Your task to perform on an android device: Search for "razer kraken" on costco, select the first entry, and add it to the cart. Image 0: 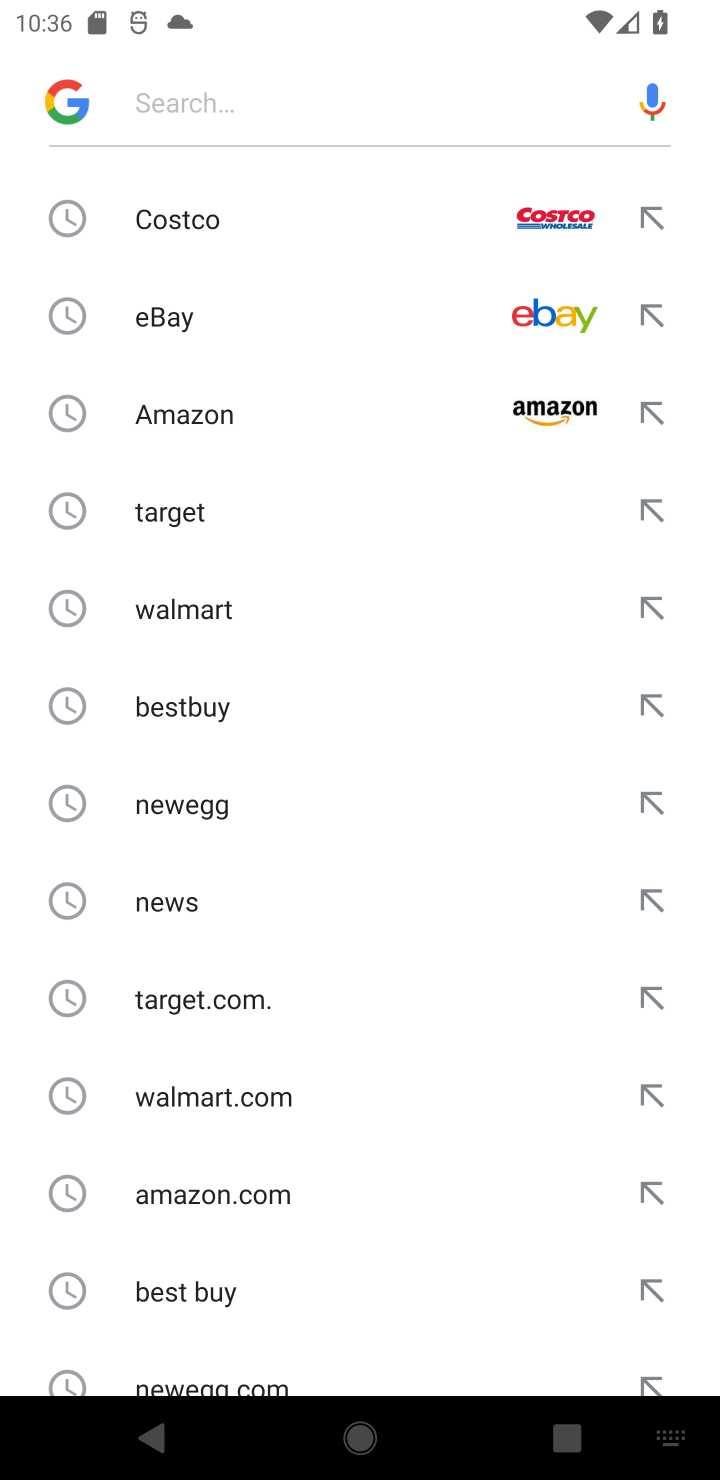
Step 0: press home button
Your task to perform on an android device: Search for "razer kraken" on costco, select the first entry, and add it to the cart. Image 1: 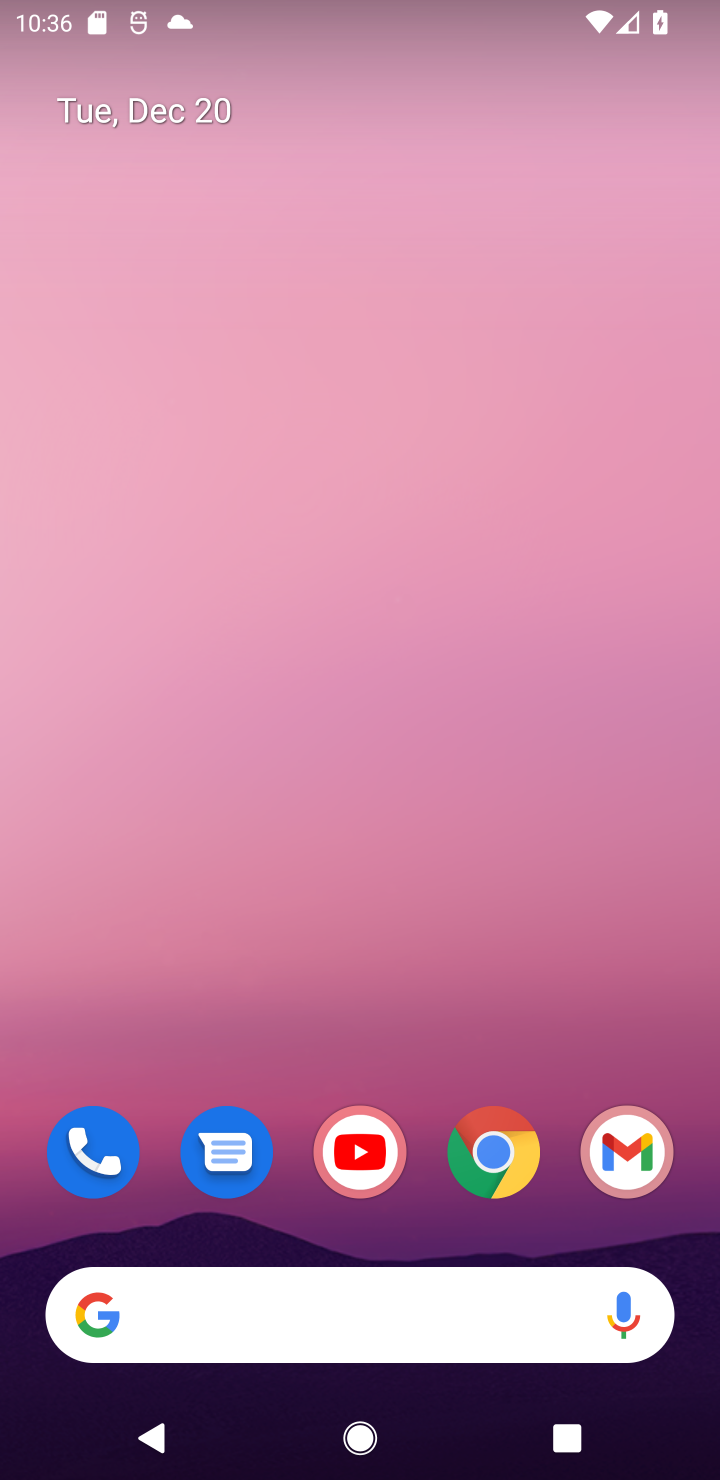
Step 1: click (469, 1146)
Your task to perform on an android device: Search for "razer kraken" on costco, select the first entry, and add it to the cart. Image 2: 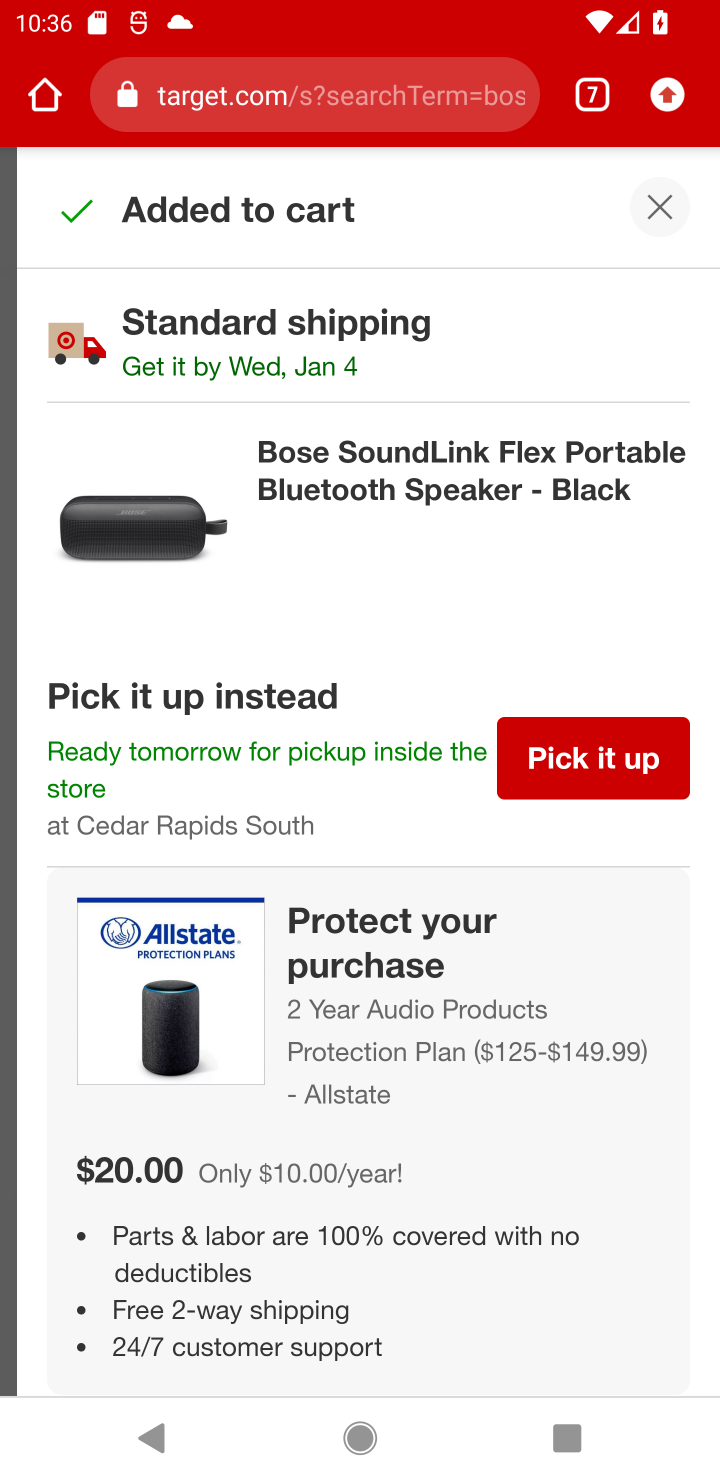
Step 2: click (578, 98)
Your task to perform on an android device: Search for "razer kraken" on costco, select the first entry, and add it to the cart. Image 3: 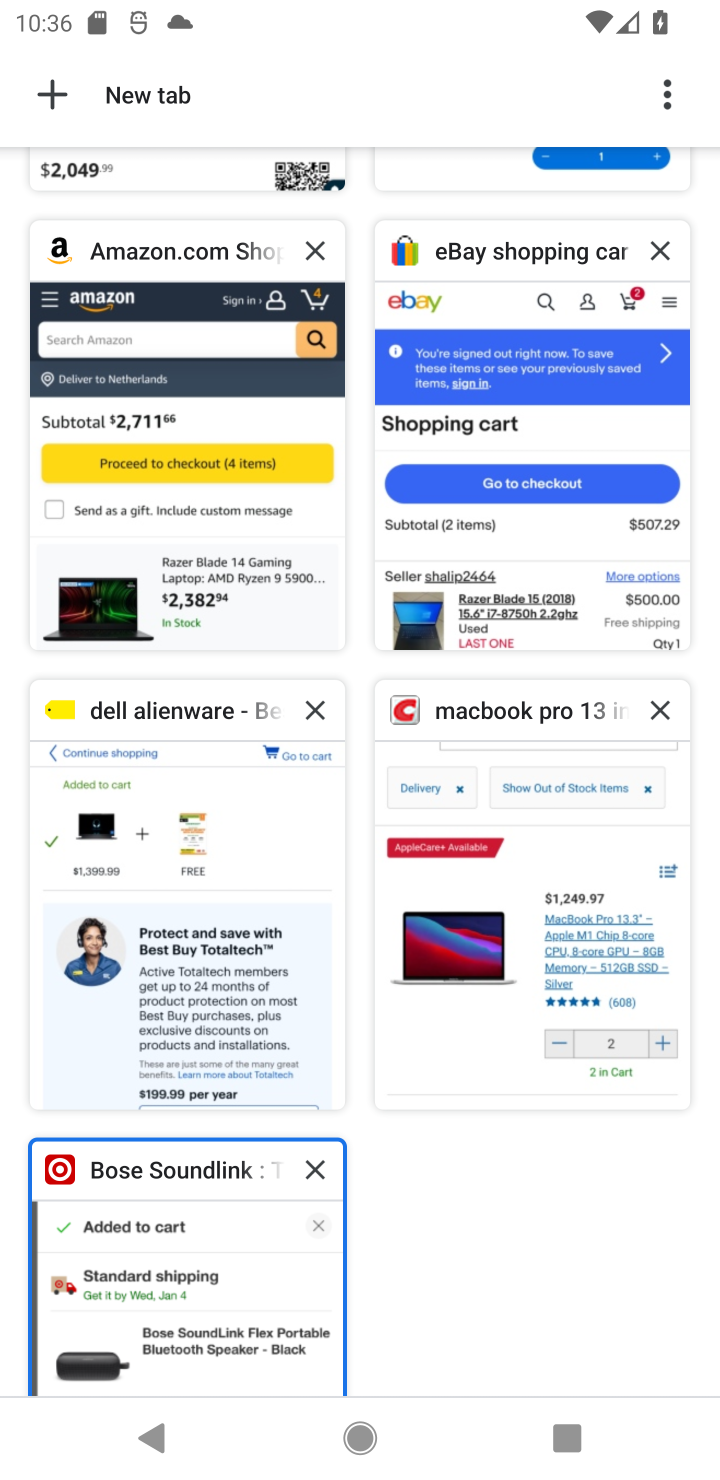
Step 3: click (439, 910)
Your task to perform on an android device: Search for "razer kraken" on costco, select the first entry, and add it to the cart. Image 4: 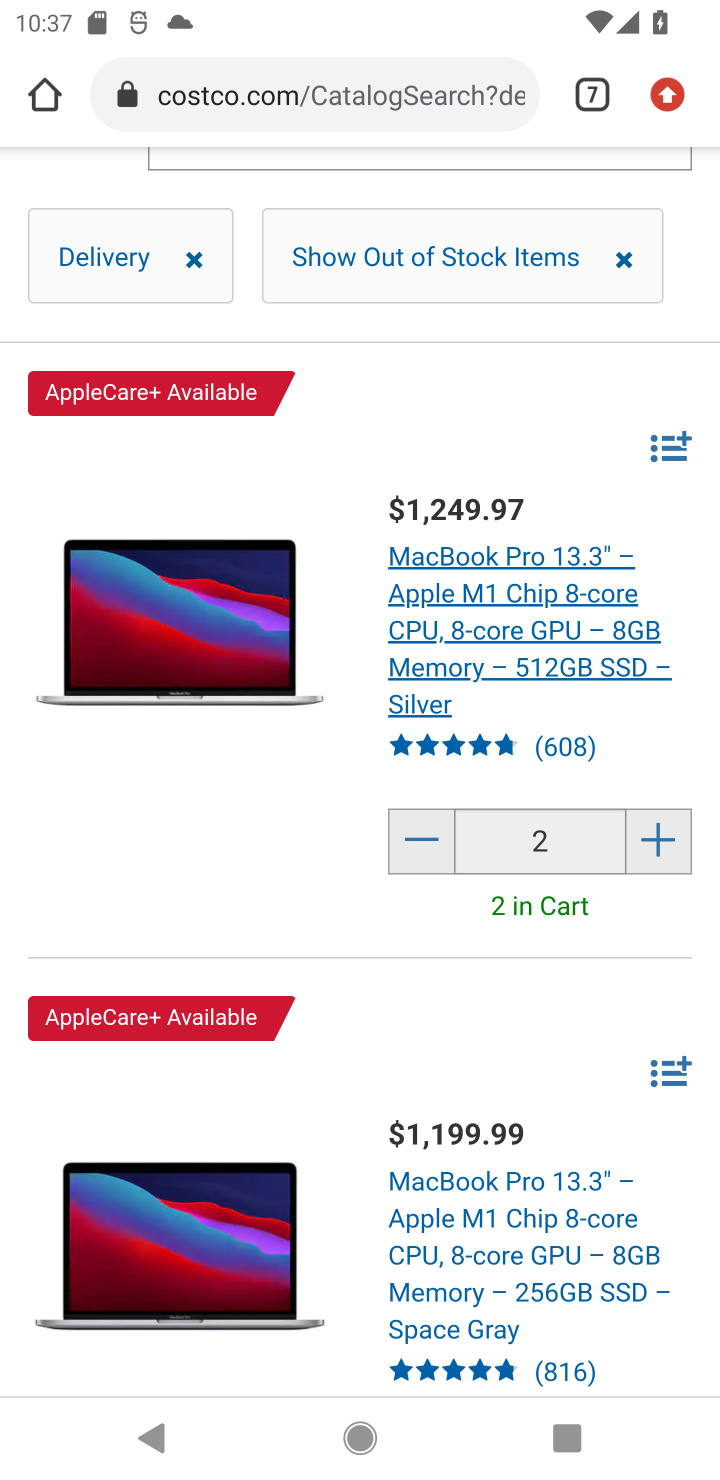
Step 4: drag from (660, 175) to (652, 915)
Your task to perform on an android device: Search for "razer kraken" on costco, select the first entry, and add it to the cart. Image 5: 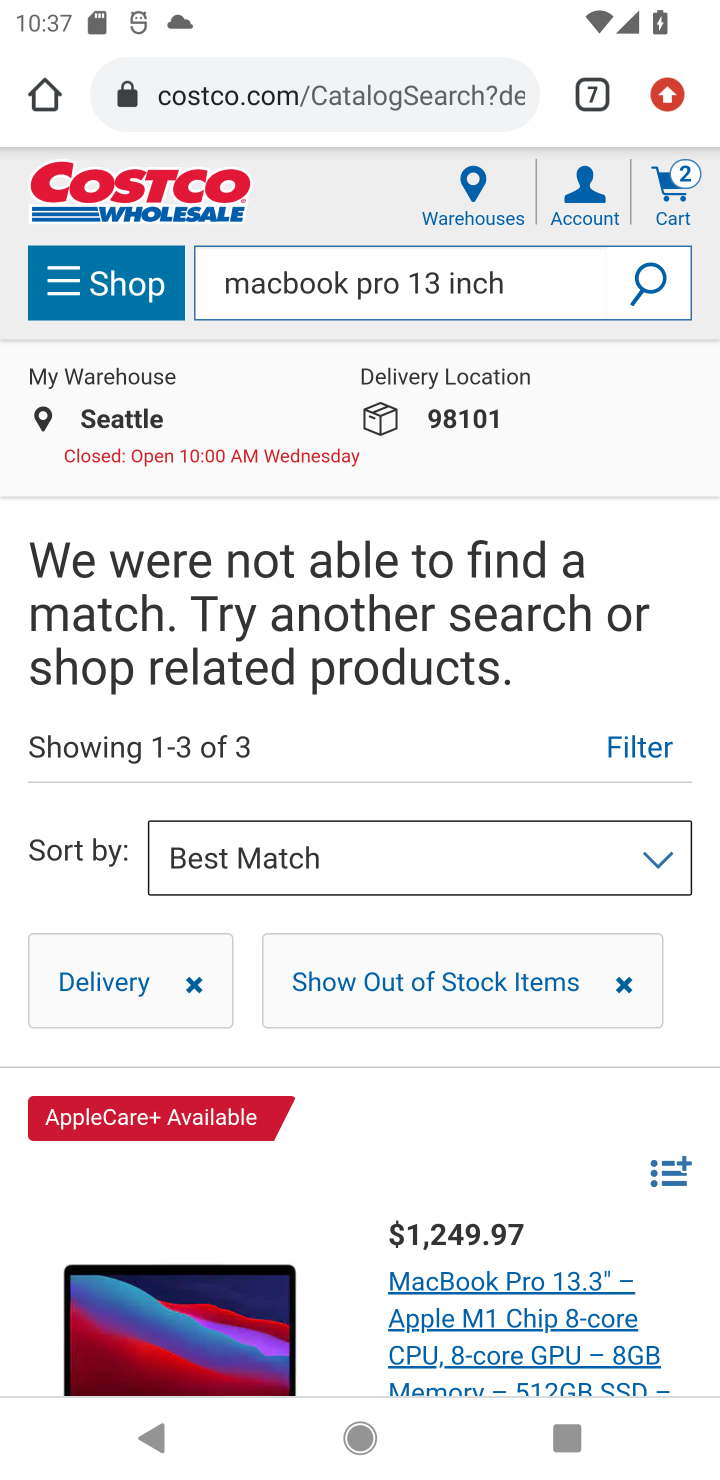
Step 5: click (490, 280)
Your task to perform on an android device: Search for "razer kraken" on costco, select the first entry, and add it to the cart. Image 6: 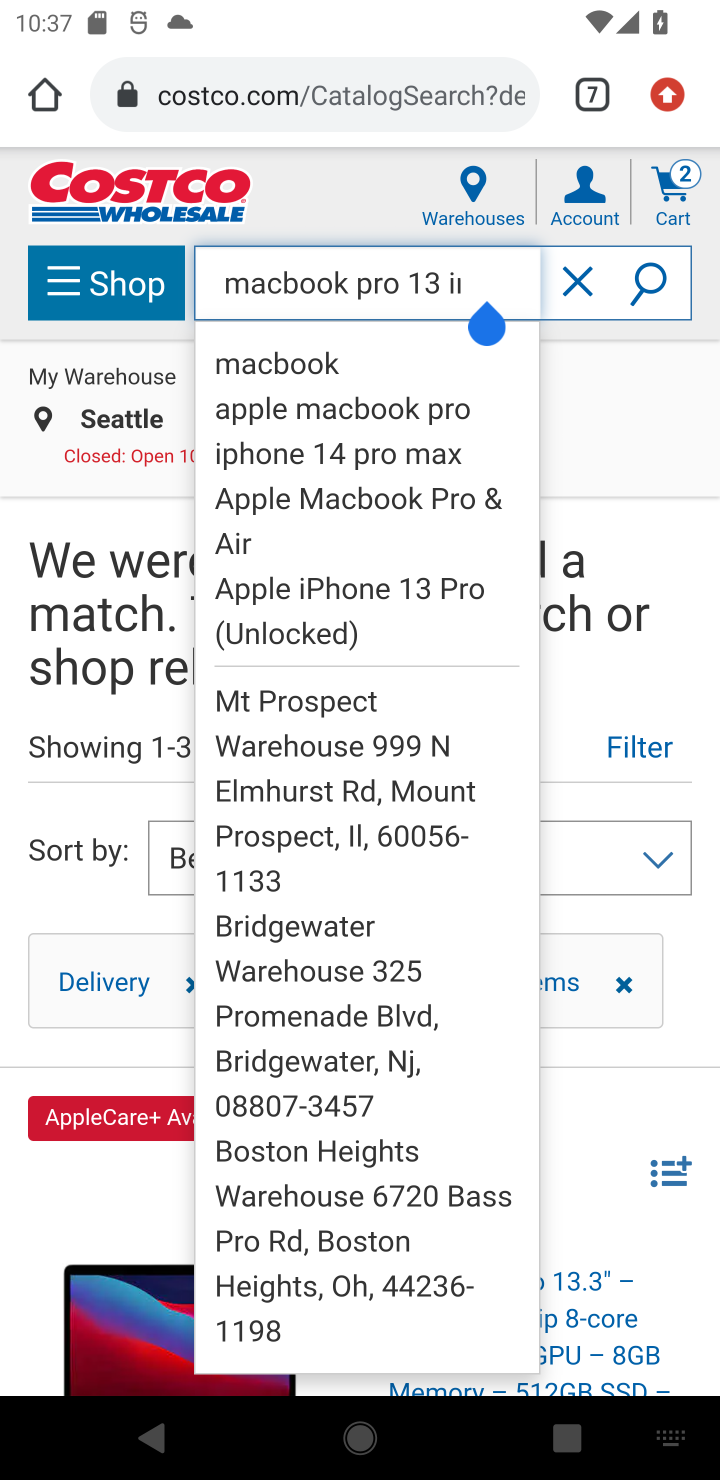
Step 6: click (582, 276)
Your task to perform on an android device: Search for "razer kraken" on costco, select the first entry, and add it to the cart. Image 7: 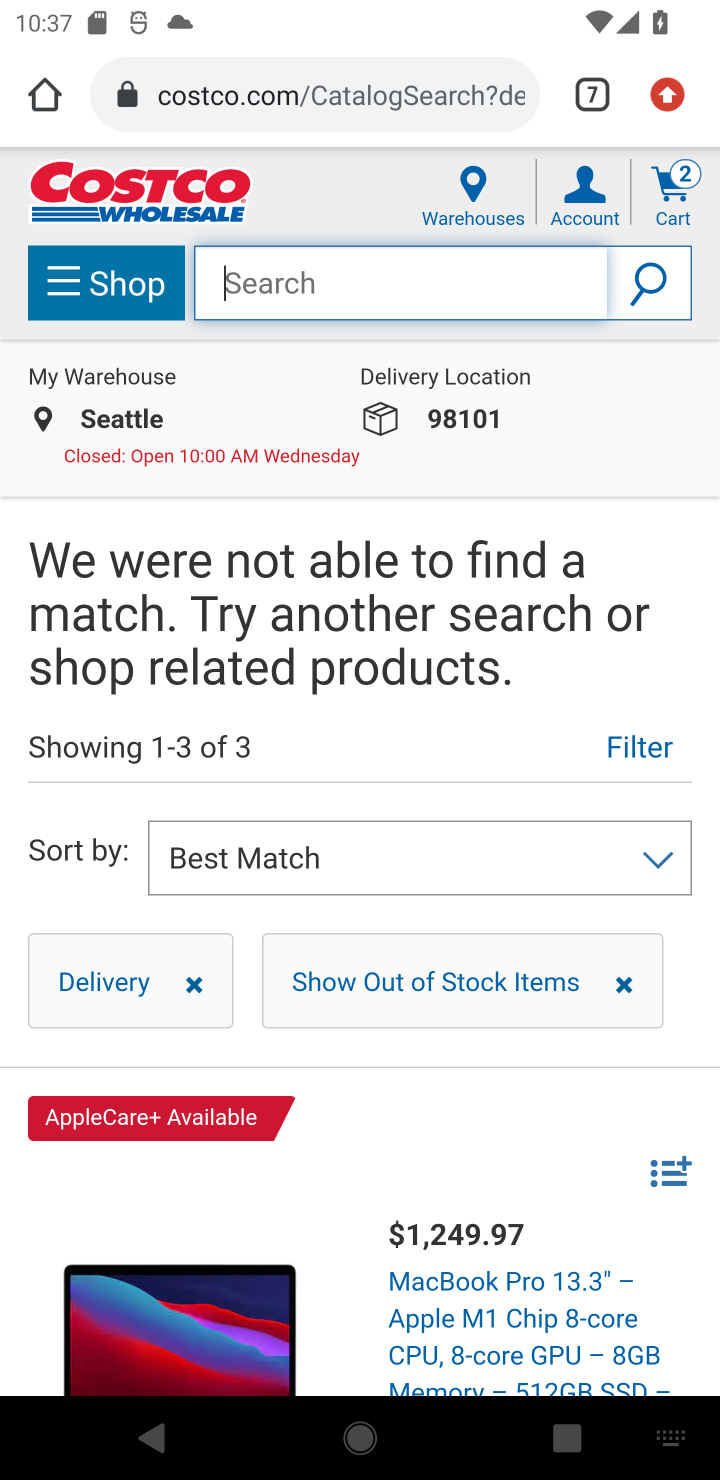
Step 7: type "razer kraken"
Your task to perform on an android device: Search for "razer kraken" on costco, select the first entry, and add it to the cart. Image 8: 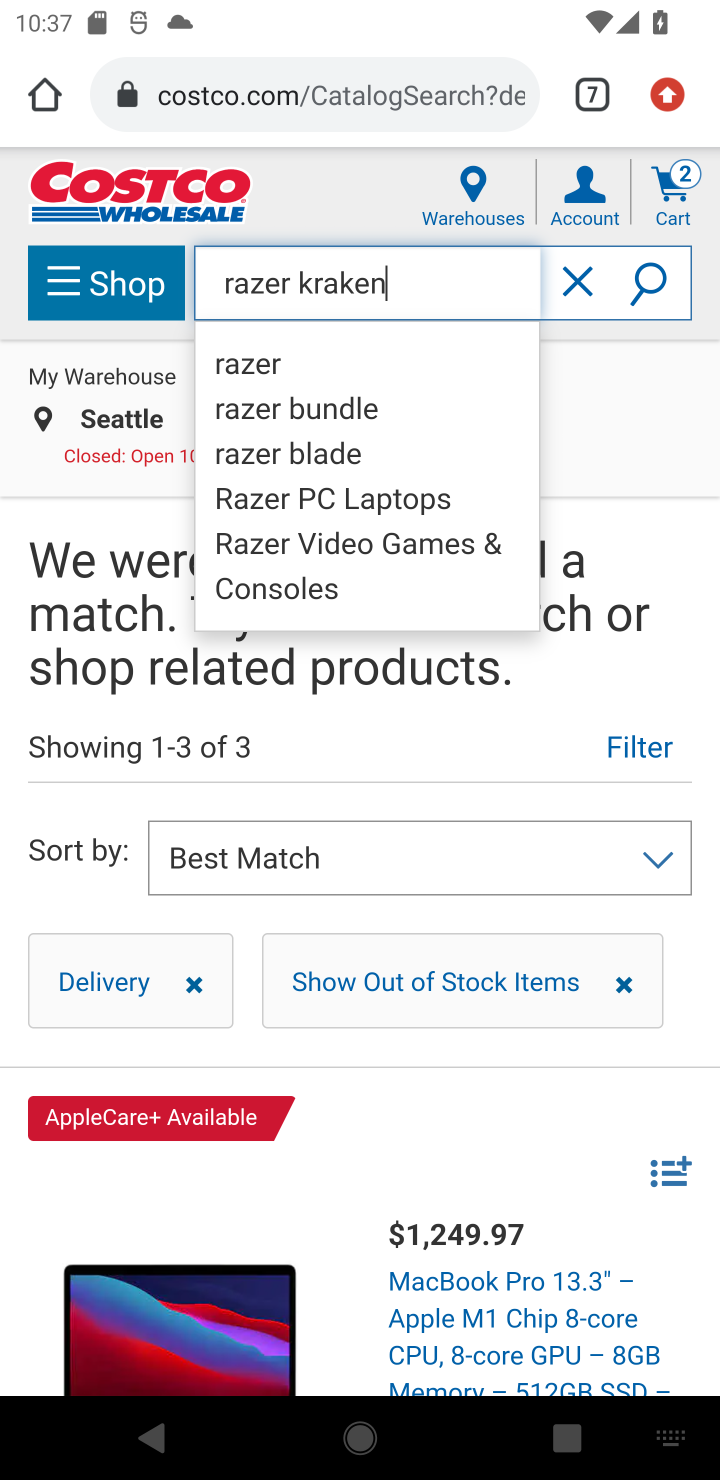
Step 8: click (649, 279)
Your task to perform on an android device: Search for "razer kraken" on costco, select the first entry, and add it to the cart. Image 9: 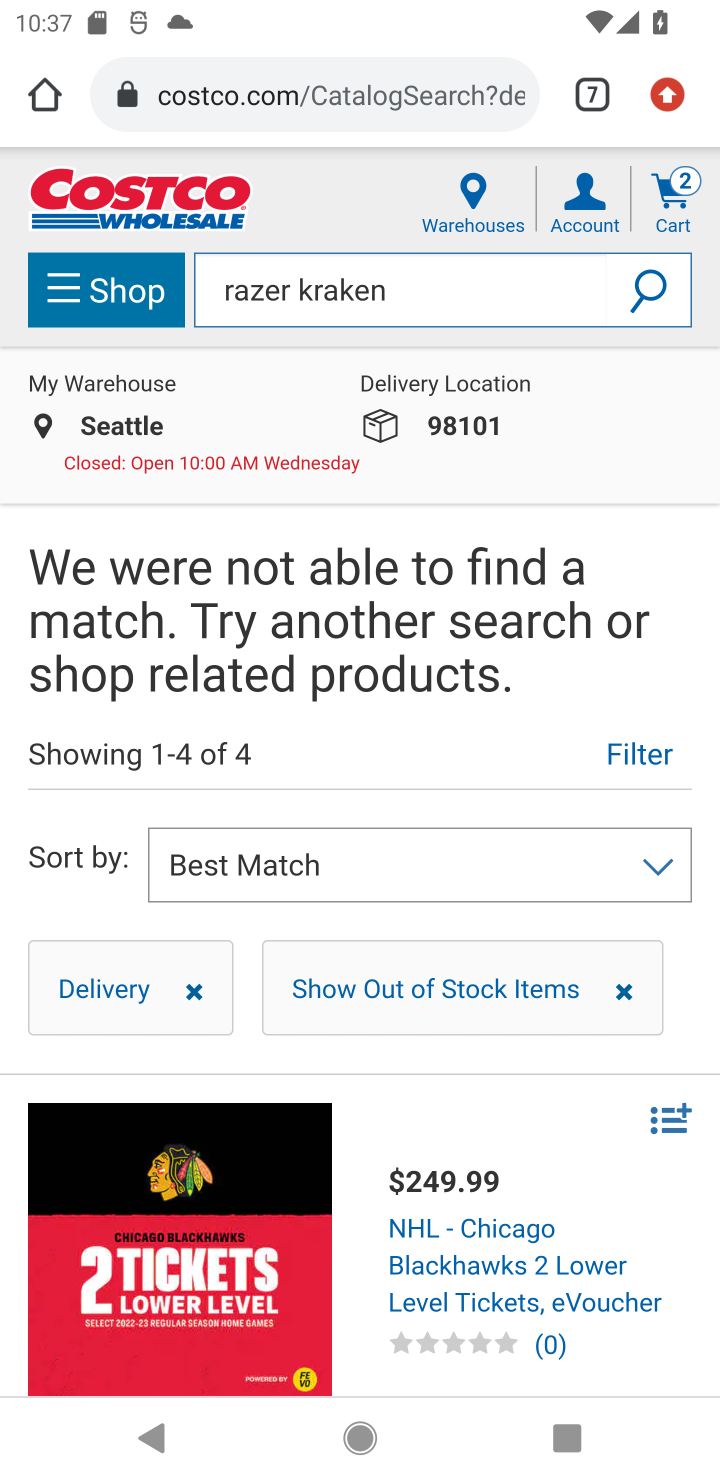
Step 9: task complete